Your task to perform on an android device: What is the recent news? Image 0: 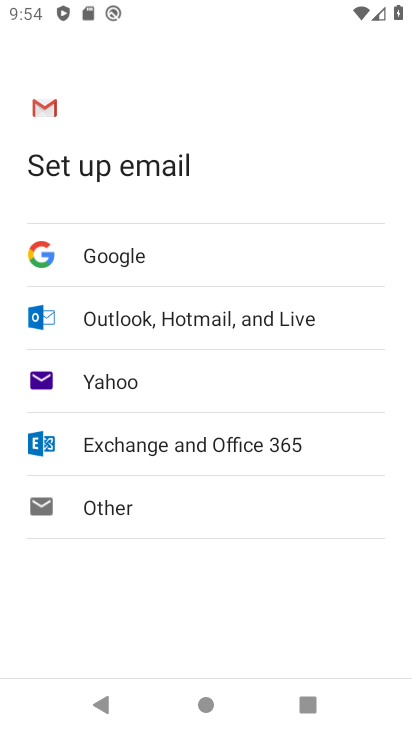
Step 0: press home button
Your task to perform on an android device: What is the recent news? Image 1: 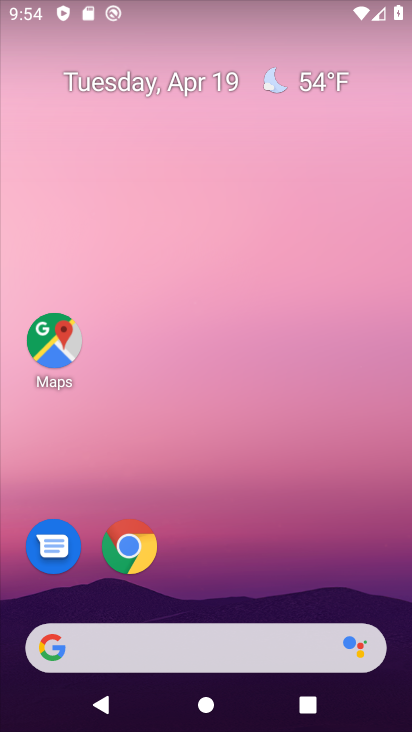
Step 1: click (275, 653)
Your task to perform on an android device: What is the recent news? Image 2: 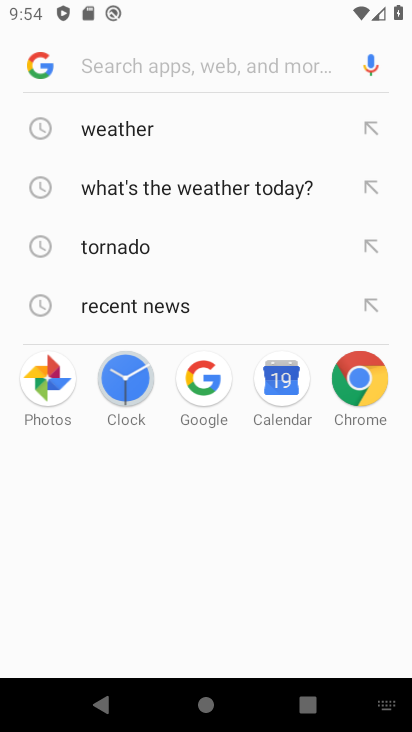
Step 2: click (230, 301)
Your task to perform on an android device: What is the recent news? Image 3: 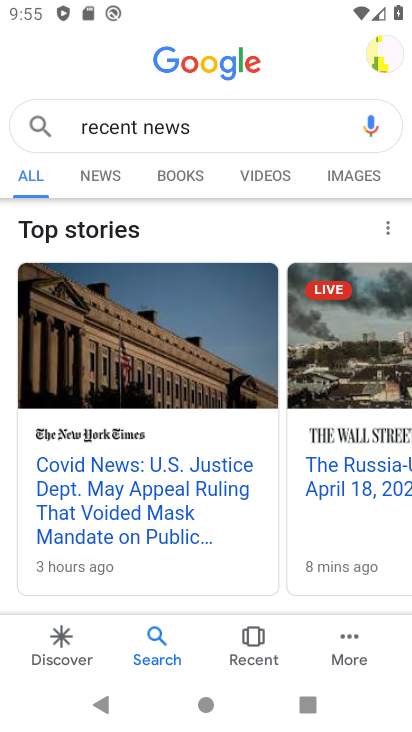
Step 3: task complete